Your task to perform on an android device: toggle wifi Image 0: 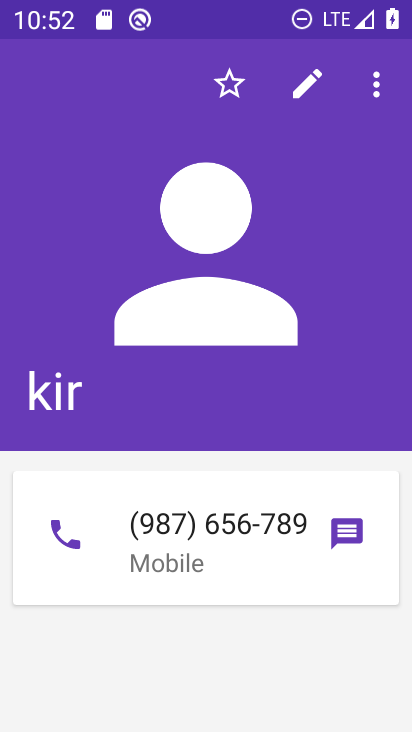
Step 0: drag from (194, 7) to (308, 670)
Your task to perform on an android device: toggle wifi Image 1: 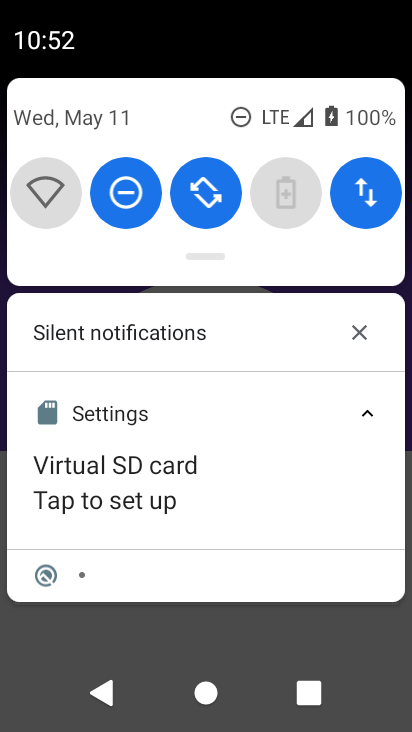
Step 1: click (59, 216)
Your task to perform on an android device: toggle wifi Image 2: 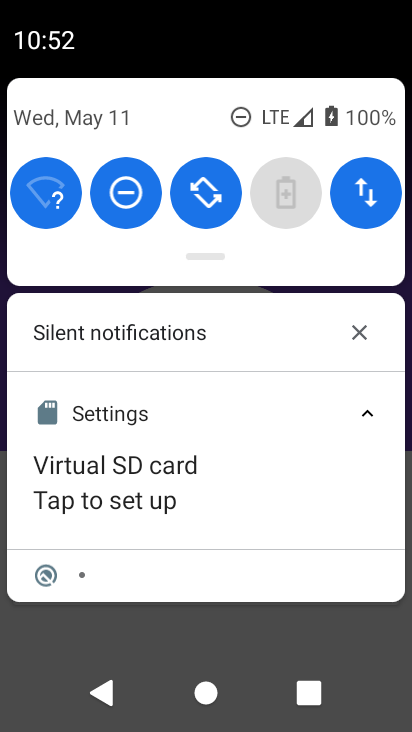
Step 2: click (59, 216)
Your task to perform on an android device: toggle wifi Image 3: 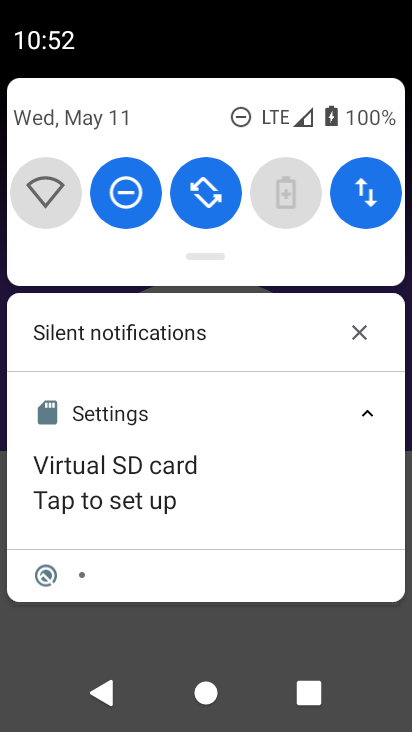
Step 3: click (59, 216)
Your task to perform on an android device: toggle wifi Image 4: 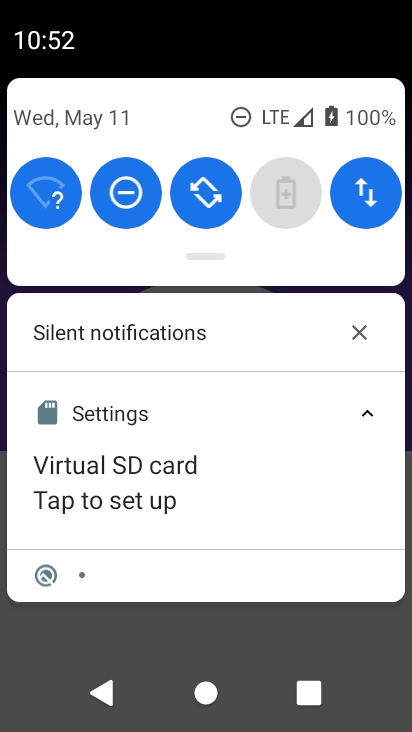
Step 4: task complete